Your task to perform on an android device: choose inbox layout in the gmail app Image 0: 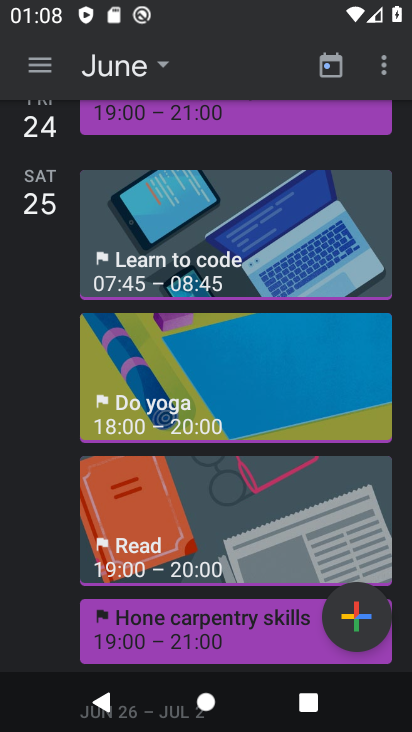
Step 0: press home button
Your task to perform on an android device: choose inbox layout in the gmail app Image 1: 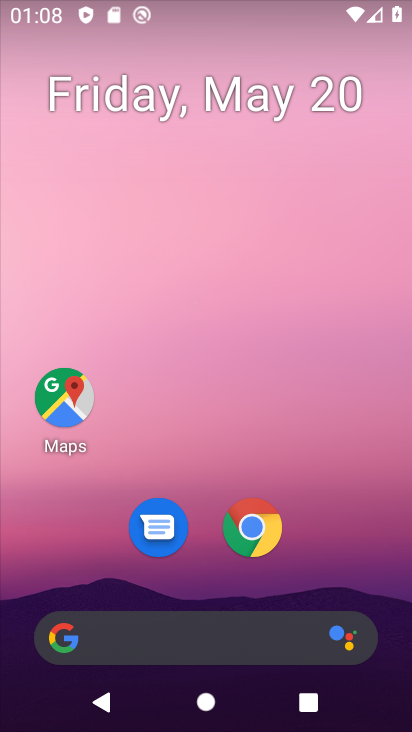
Step 1: drag from (200, 574) to (293, 81)
Your task to perform on an android device: choose inbox layout in the gmail app Image 2: 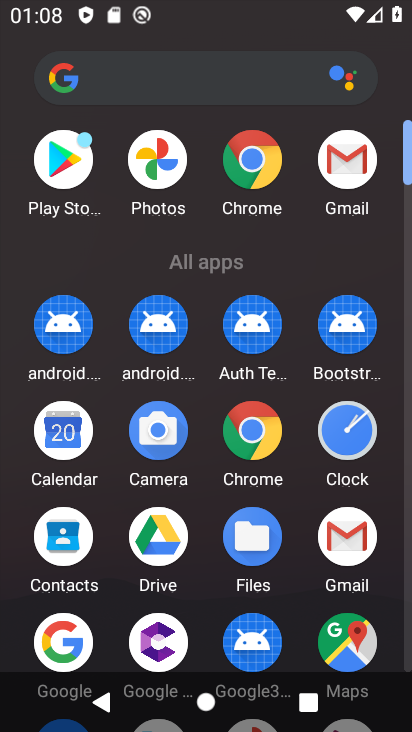
Step 2: click (342, 526)
Your task to perform on an android device: choose inbox layout in the gmail app Image 3: 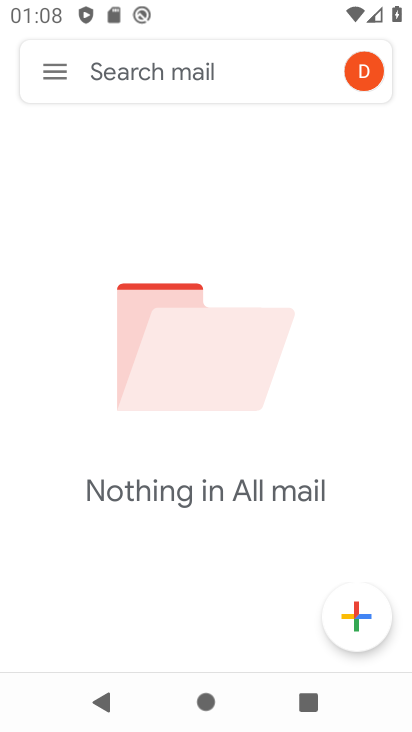
Step 3: click (54, 67)
Your task to perform on an android device: choose inbox layout in the gmail app Image 4: 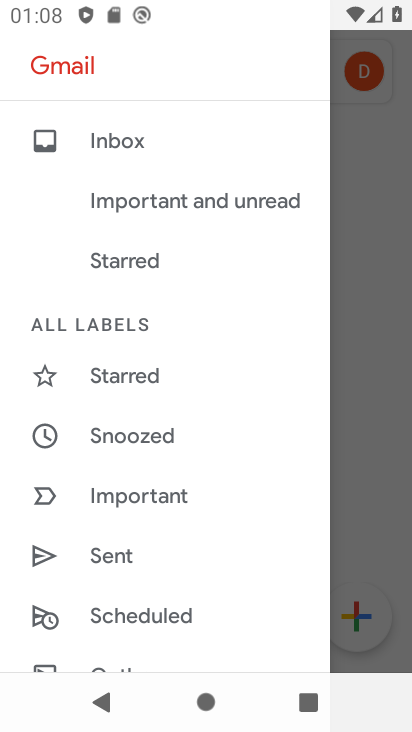
Step 4: drag from (191, 598) to (172, 101)
Your task to perform on an android device: choose inbox layout in the gmail app Image 5: 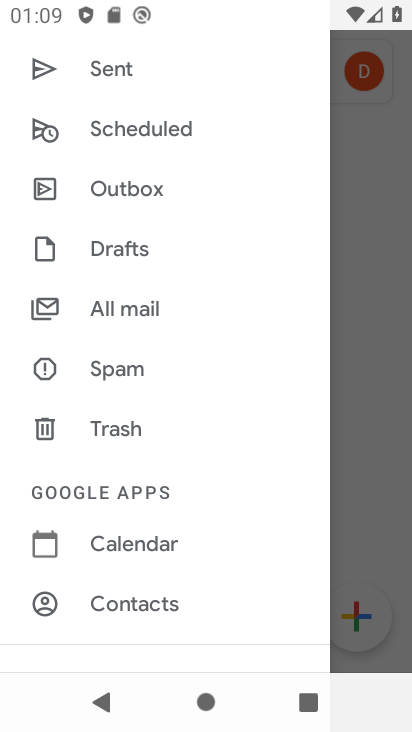
Step 5: drag from (195, 575) to (246, 126)
Your task to perform on an android device: choose inbox layout in the gmail app Image 6: 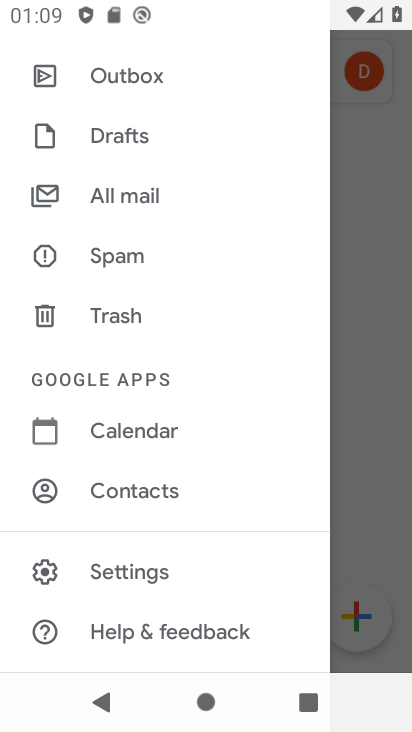
Step 6: click (178, 567)
Your task to perform on an android device: choose inbox layout in the gmail app Image 7: 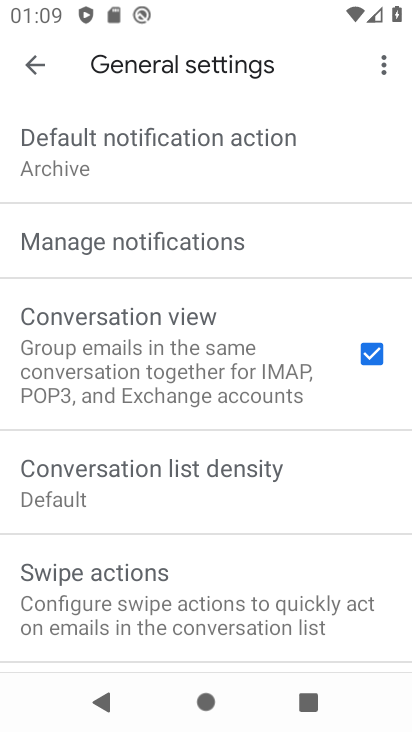
Step 7: click (37, 55)
Your task to perform on an android device: choose inbox layout in the gmail app Image 8: 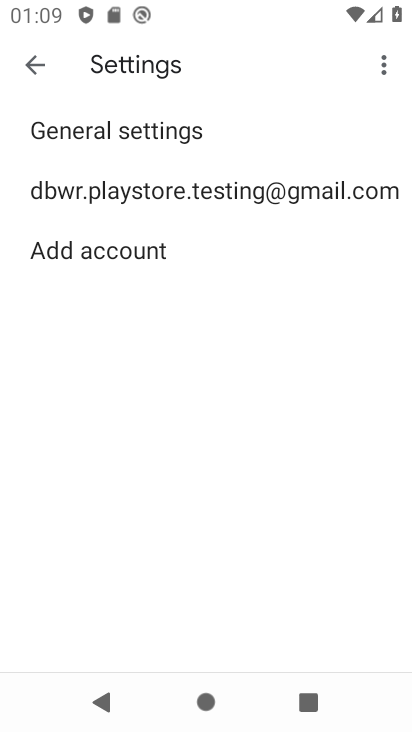
Step 8: click (171, 186)
Your task to perform on an android device: choose inbox layout in the gmail app Image 9: 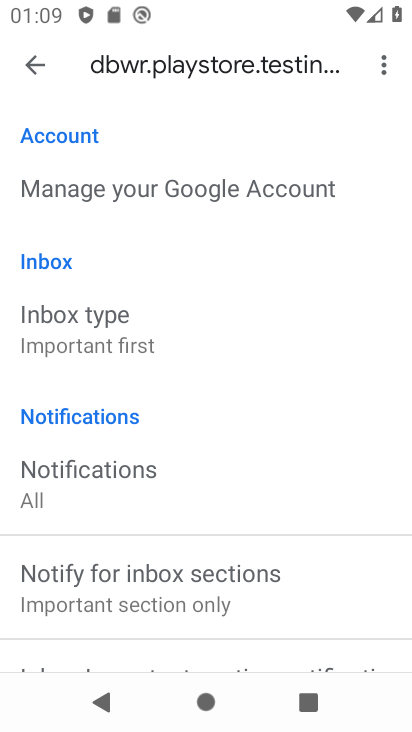
Step 9: click (164, 328)
Your task to perform on an android device: choose inbox layout in the gmail app Image 10: 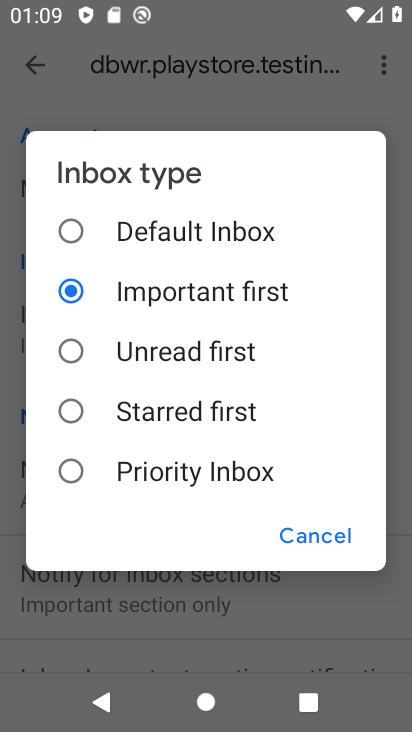
Step 10: click (72, 220)
Your task to perform on an android device: choose inbox layout in the gmail app Image 11: 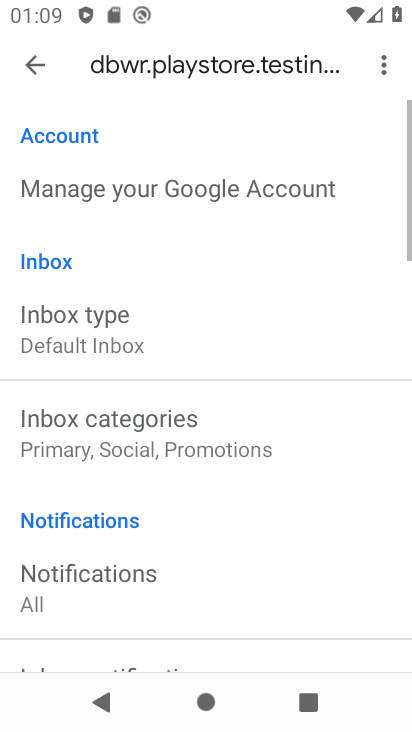
Step 11: task complete